Your task to perform on an android device: Open location settings Image 0: 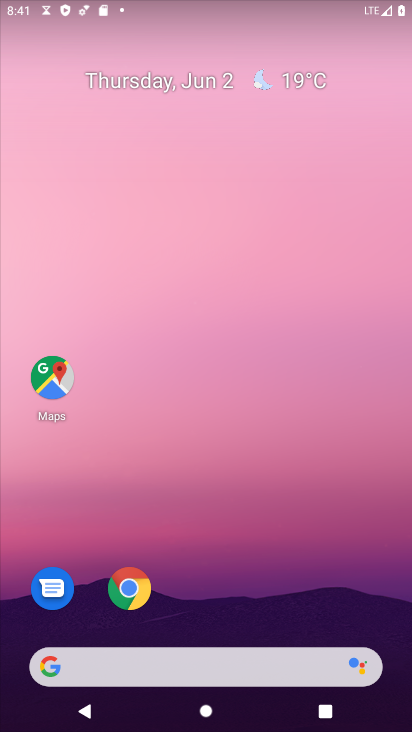
Step 0: drag from (160, 581) to (199, 133)
Your task to perform on an android device: Open location settings Image 1: 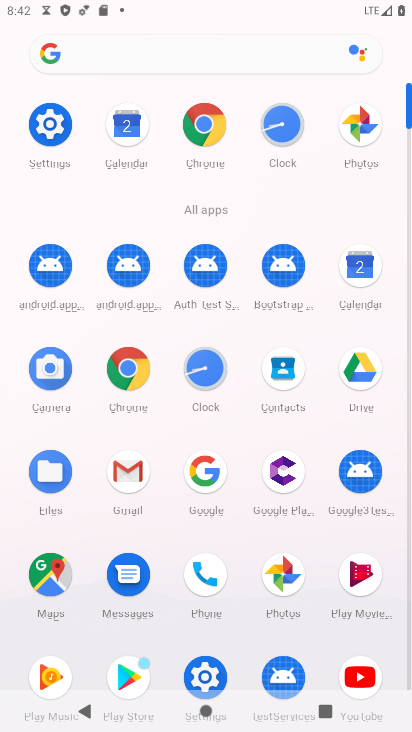
Step 1: click (49, 125)
Your task to perform on an android device: Open location settings Image 2: 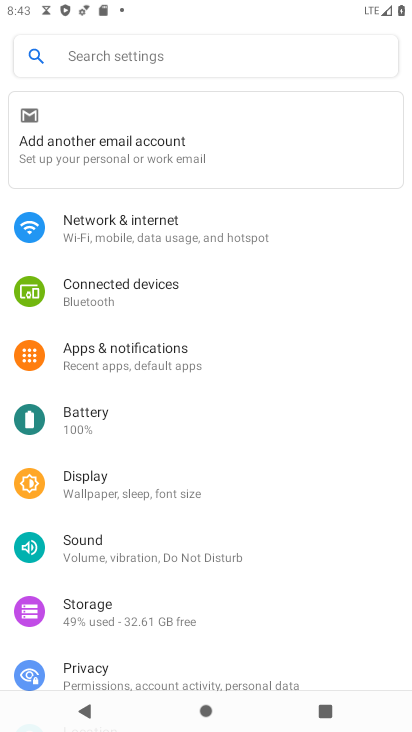
Step 2: drag from (136, 629) to (185, 200)
Your task to perform on an android device: Open location settings Image 3: 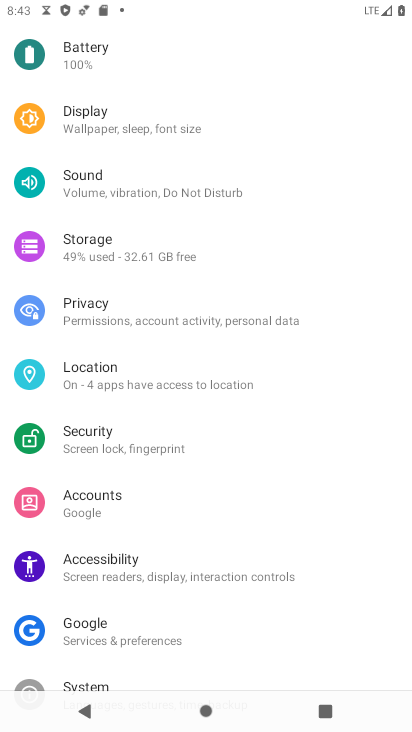
Step 3: click (119, 384)
Your task to perform on an android device: Open location settings Image 4: 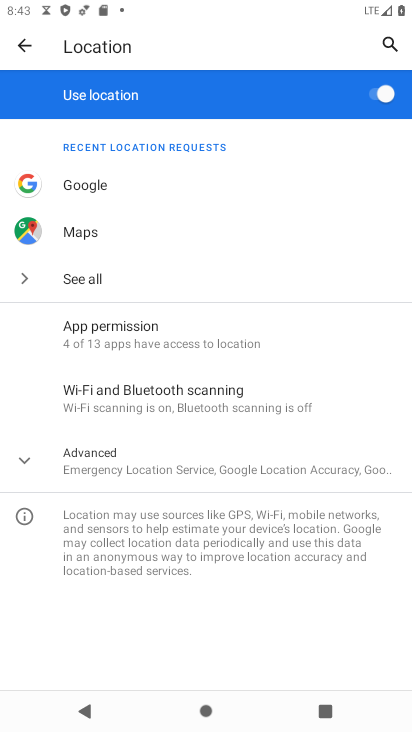
Step 4: task complete